Your task to perform on an android device: Open battery settings Image 0: 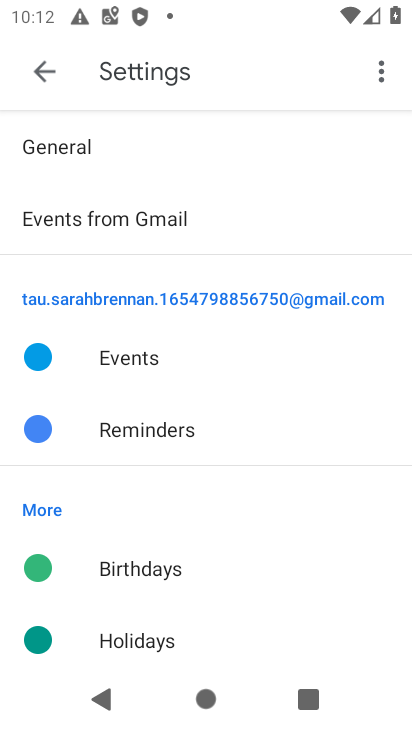
Step 0: press back button
Your task to perform on an android device: Open battery settings Image 1: 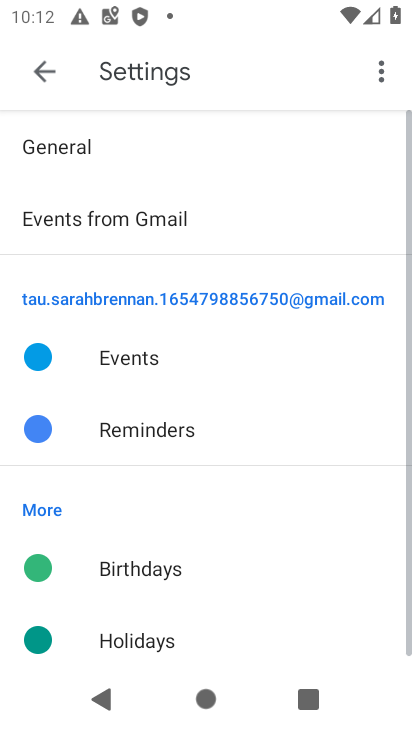
Step 1: press back button
Your task to perform on an android device: Open battery settings Image 2: 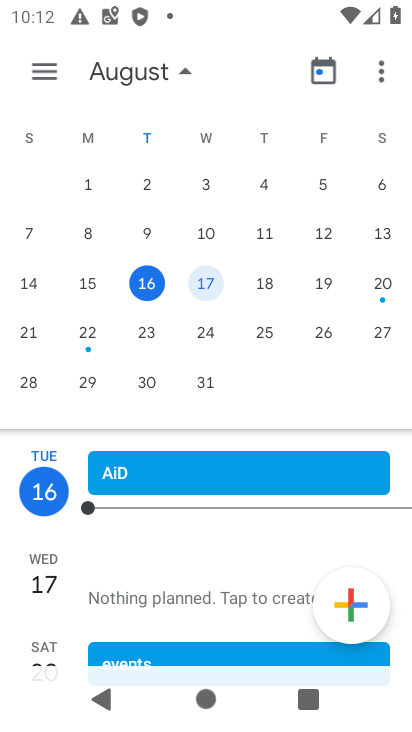
Step 2: press back button
Your task to perform on an android device: Open battery settings Image 3: 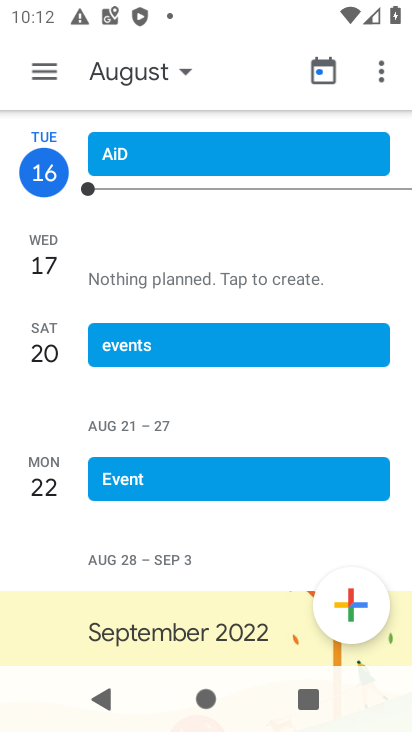
Step 3: press back button
Your task to perform on an android device: Open battery settings Image 4: 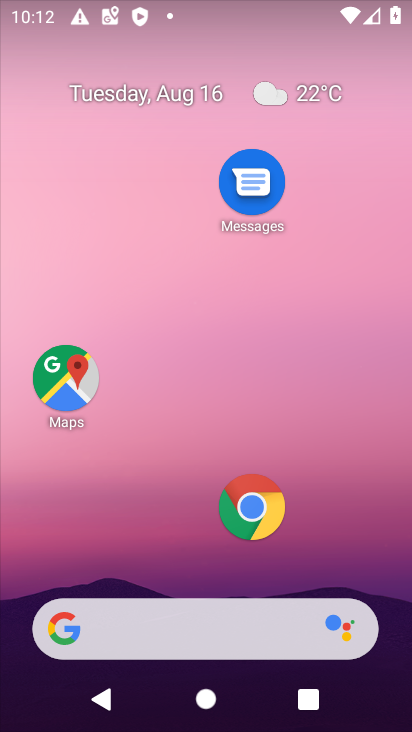
Step 4: drag from (149, 552) to (224, 43)
Your task to perform on an android device: Open battery settings Image 5: 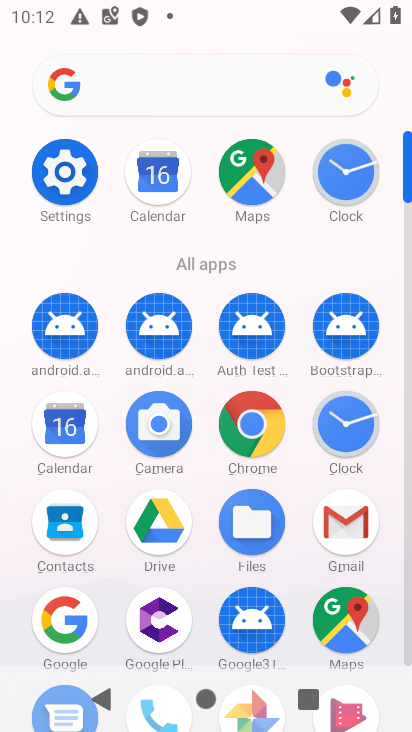
Step 5: click (61, 175)
Your task to perform on an android device: Open battery settings Image 6: 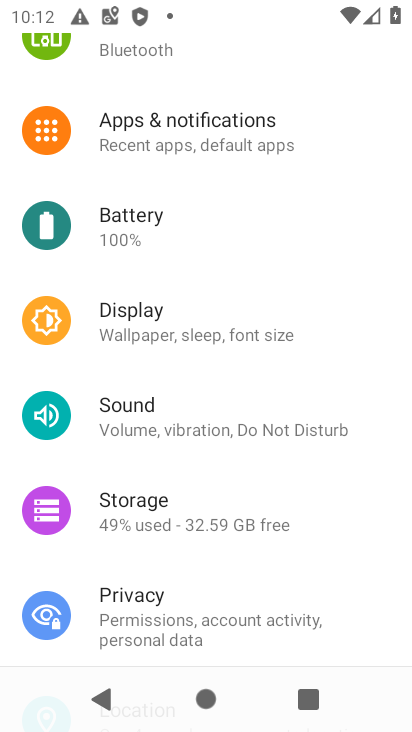
Step 6: click (136, 225)
Your task to perform on an android device: Open battery settings Image 7: 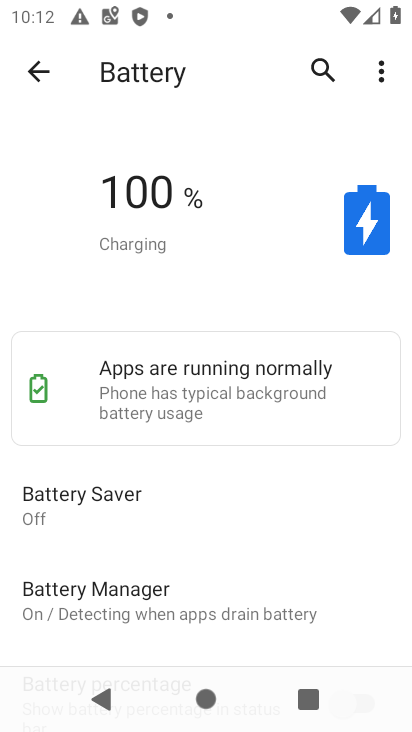
Step 7: task complete